Your task to perform on an android device: search for starred emails in the gmail app Image 0: 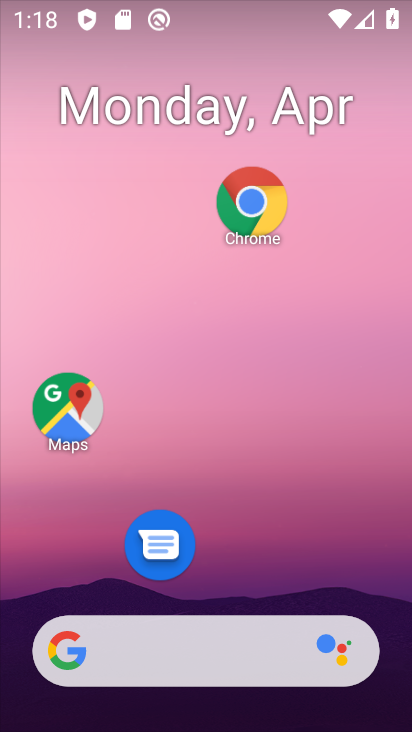
Step 0: drag from (280, 588) to (284, 202)
Your task to perform on an android device: search for starred emails in the gmail app Image 1: 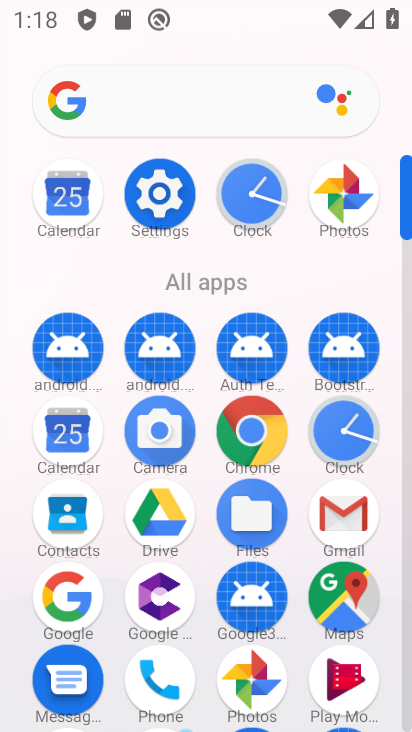
Step 1: click (339, 530)
Your task to perform on an android device: search for starred emails in the gmail app Image 2: 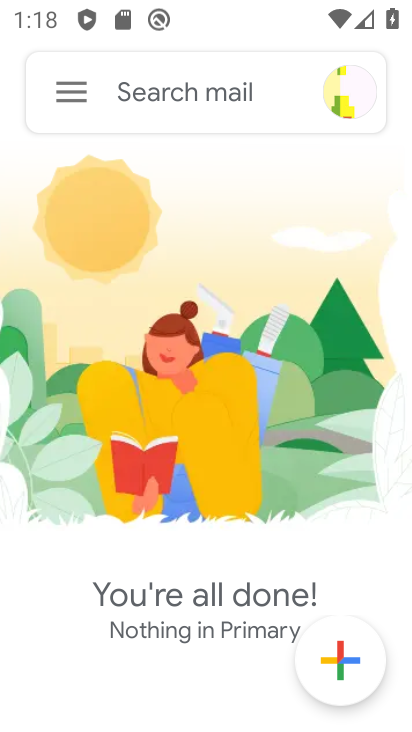
Step 2: click (74, 114)
Your task to perform on an android device: search for starred emails in the gmail app Image 3: 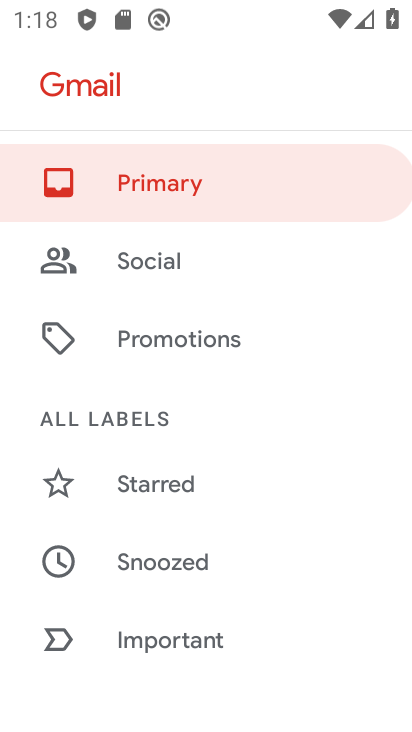
Step 3: click (195, 477)
Your task to perform on an android device: search for starred emails in the gmail app Image 4: 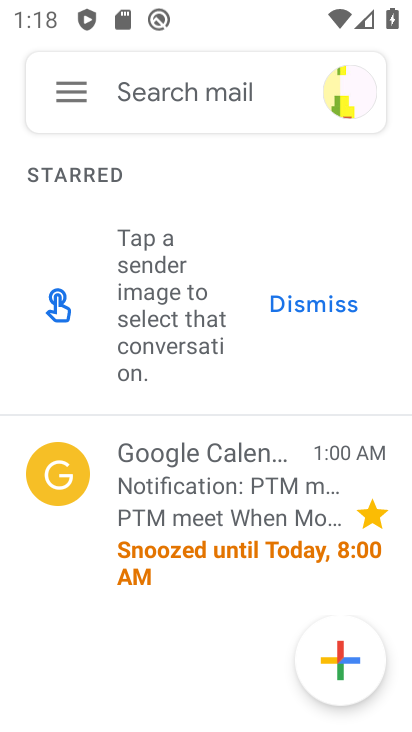
Step 4: task complete